Your task to perform on an android device: Go to location settings Image 0: 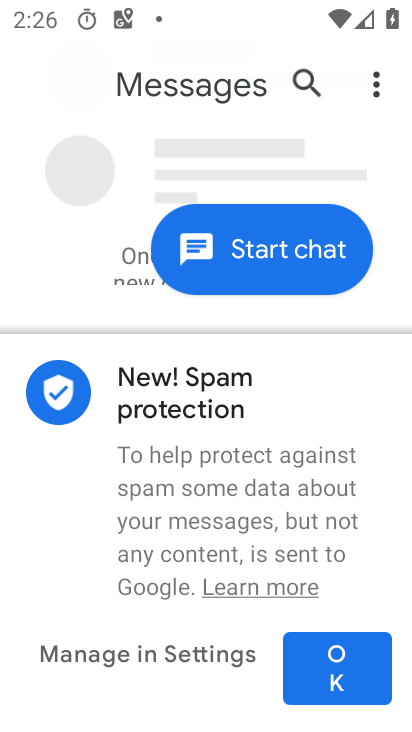
Step 0: press home button
Your task to perform on an android device: Go to location settings Image 1: 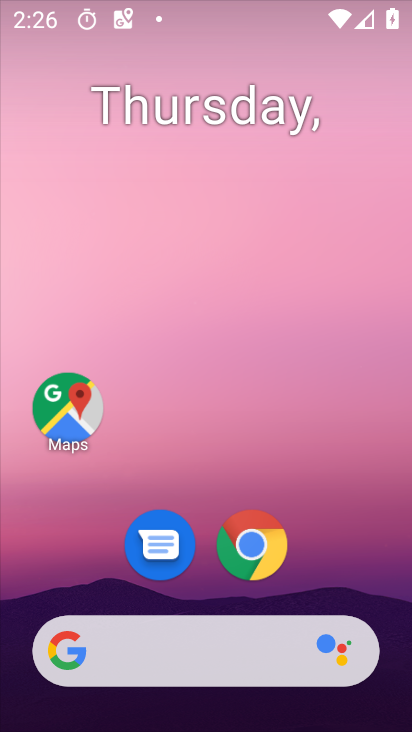
Step 1: drag from (222, 730) to (239, 79)
Your task to perform on an android device: Go to location settings Image 2: 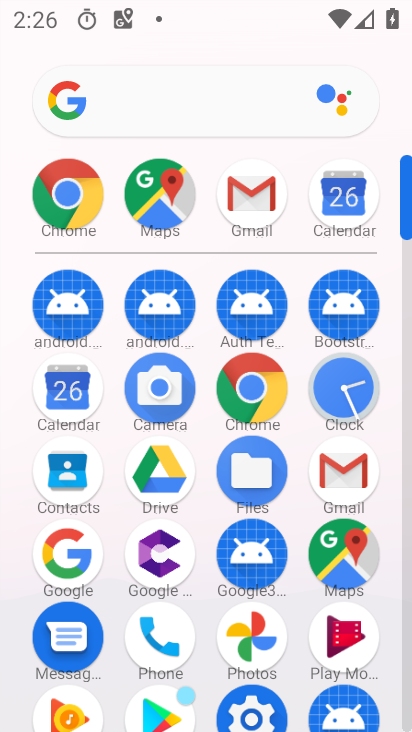
Step 2: drag from (204, 521) to (204, 190)
Your task to perform on an android device: Go to location settings Image 3: 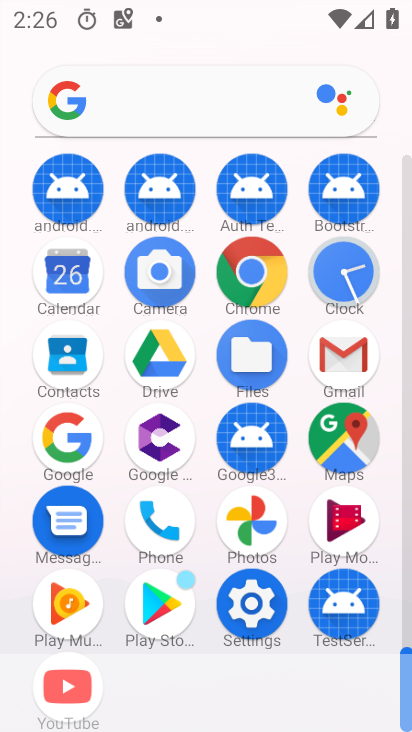
Step 3: click (259, 603)
Your task to perform on an android device: Go to location settings Image 4: 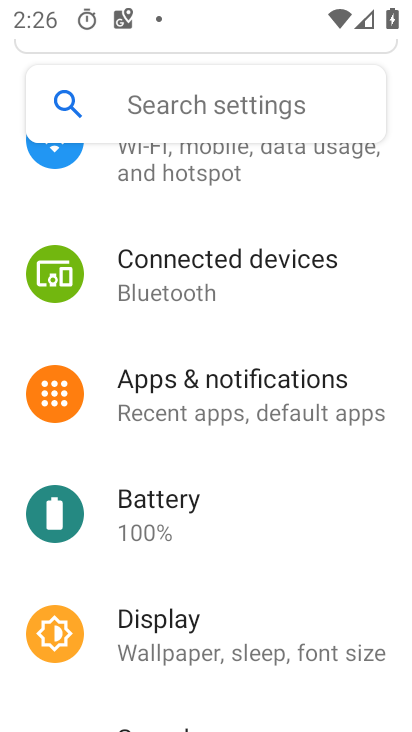
Step 4: drag from (257, 203) to (229, 560)
Your task to perform on an android device: Go to location settings Image 5: 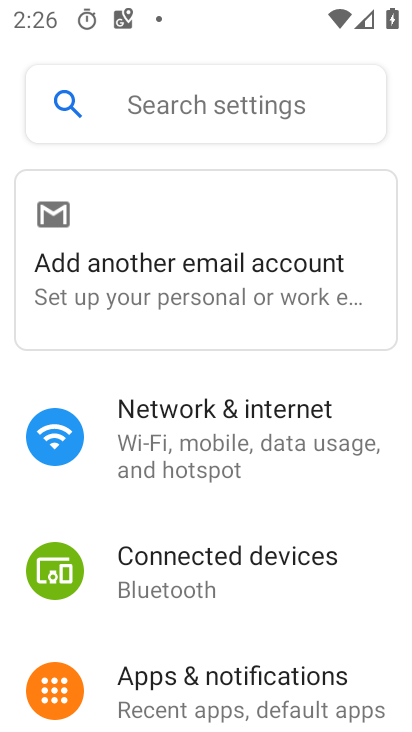
Step 5: drag from (226, 682) to (218, 306)
Your task to perform on an android device: Go to location settings Image 6: 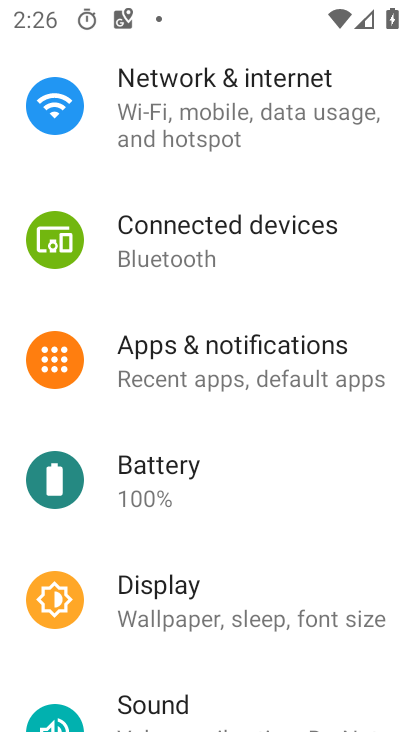
Step 6: drag from (207, 680) to (213, 149)
Your task to perform on an android device: Go to location settings Image 7: 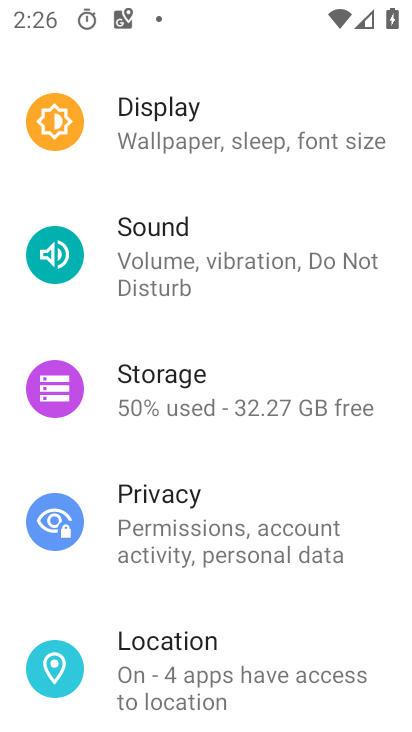
Step 7: click (178, 651)
Your task to perform on an android device: Go to location settings Image 8: 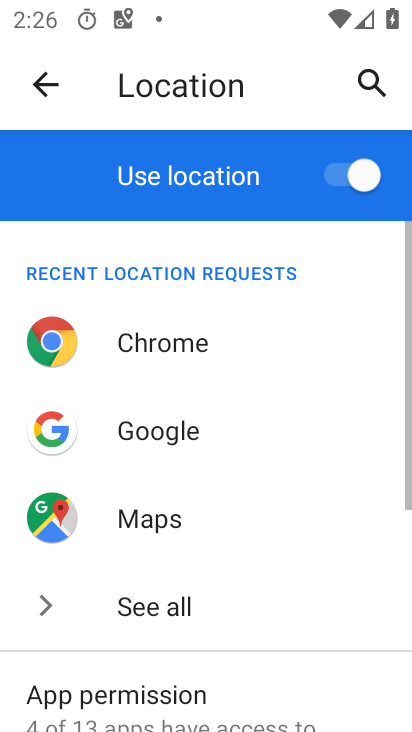
Step 8: task complete